Your task to perform on an android device: Go to network settings Image 0: 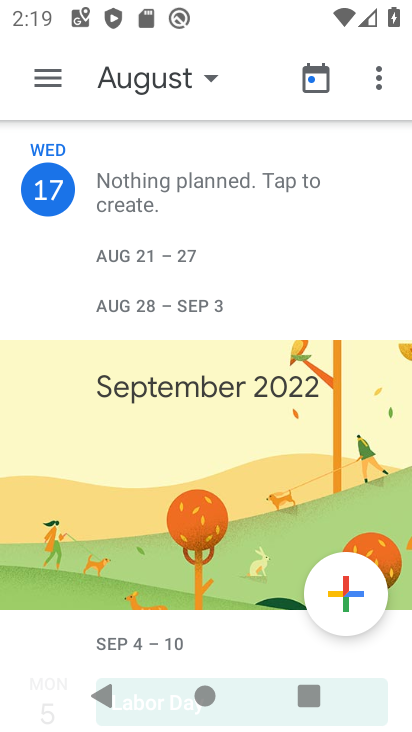
Step 0: drag from (15, 660) to (191, 170)
Your task to perform on an android device: Go to network settings Image 1: 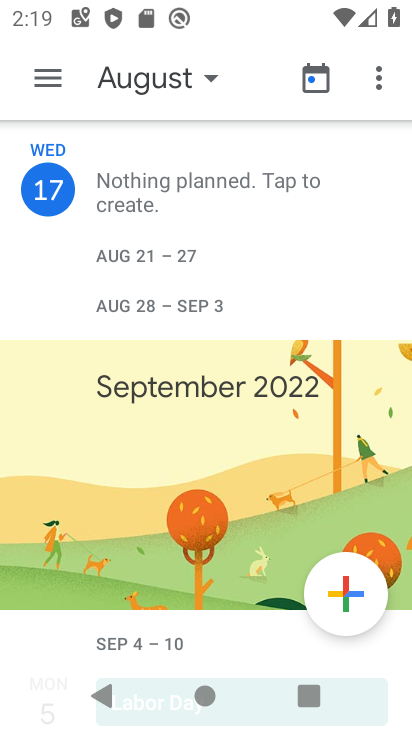
Step 1: press home button
Your task to perform on an android device: Go to network settings Image 2: 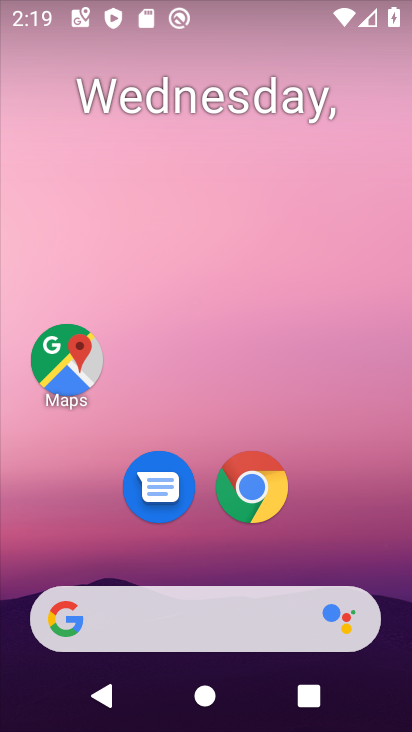
Step 2: drag from (28, 677) to (242, 135)
Your task to perform on an android device: Go to network settings Image 3: 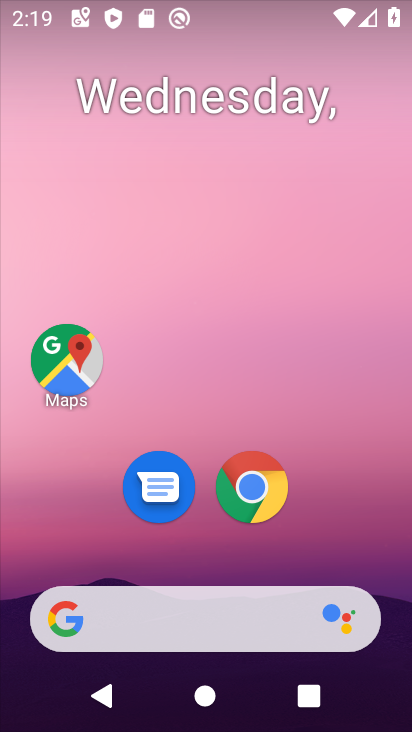
Step 3: drag from (100, 488) to (152, 140)
Your task to perform on an android device: Go to network settings Image 4: 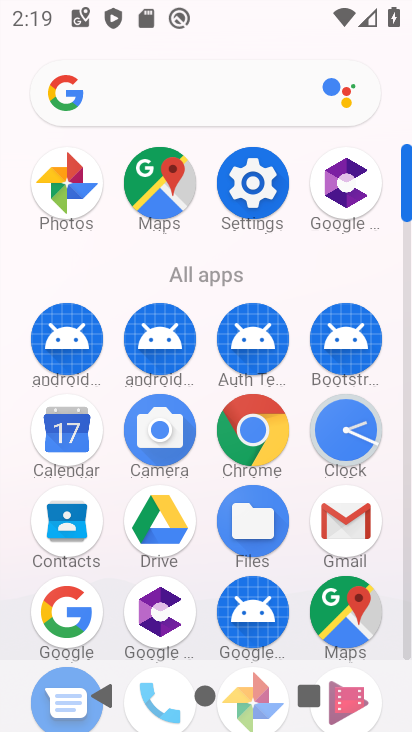
Step 4: click (238, 167)
Your task to perform on an android device: Go to network settings Image 5: 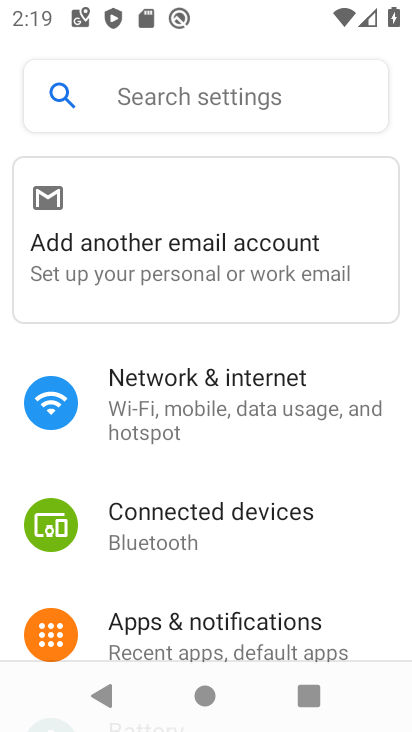
Step 5: click (207, 419)
Your task to perform on an android device: Go to network settings Image 6: 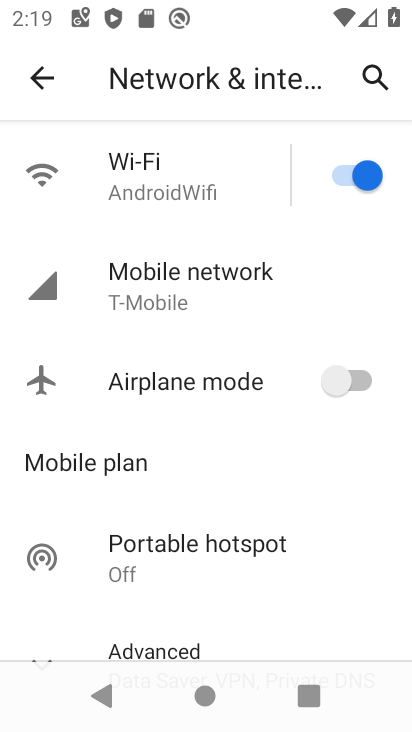
Step 6: task complete